Your task to perform on an android device: choose inbox layout in the gmail app Image 0: 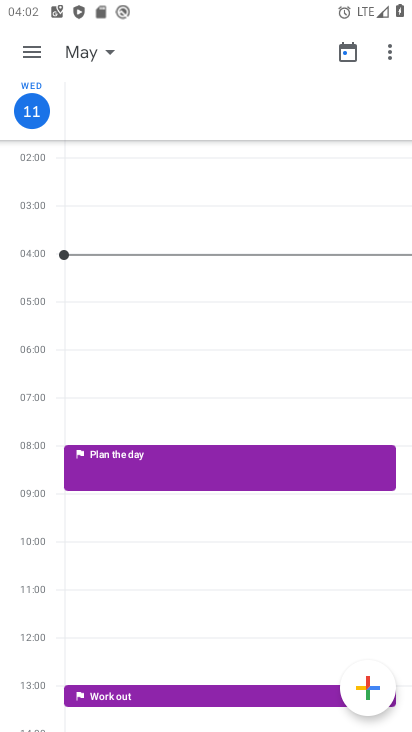
Step 0: press home button
Your task to perform on an android device: choose inbox layout in the gmail app Image 1: 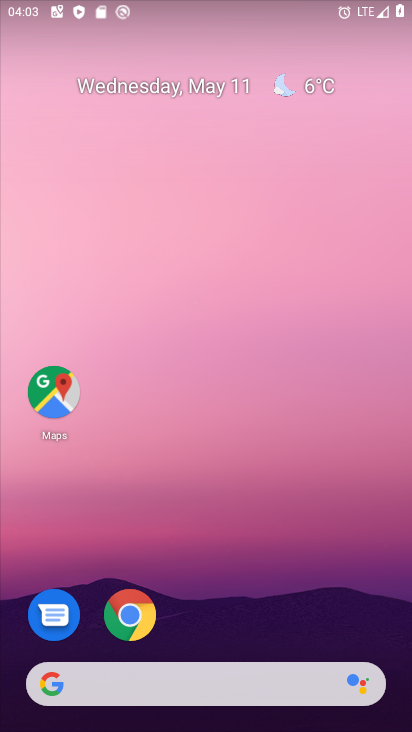
Step 1: drag from (266, 485) to (253, 130)
Your task to perform on an android device: choose inbox layout in the gmail app Image 2: 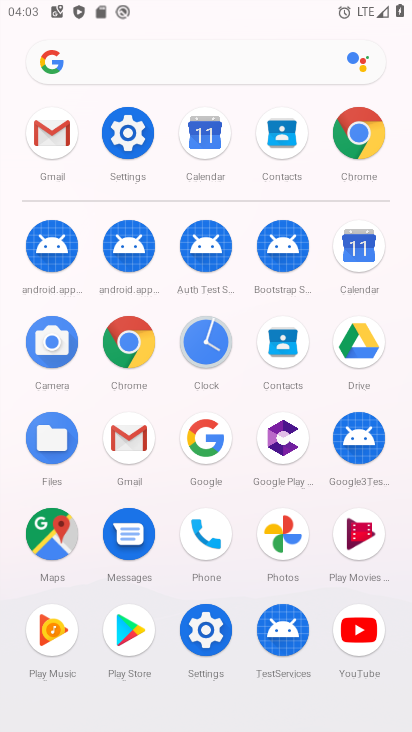
Step 2: click (52, 140)
Your task to perform on an android device: choose inbox layout in the gmail app Image 3: 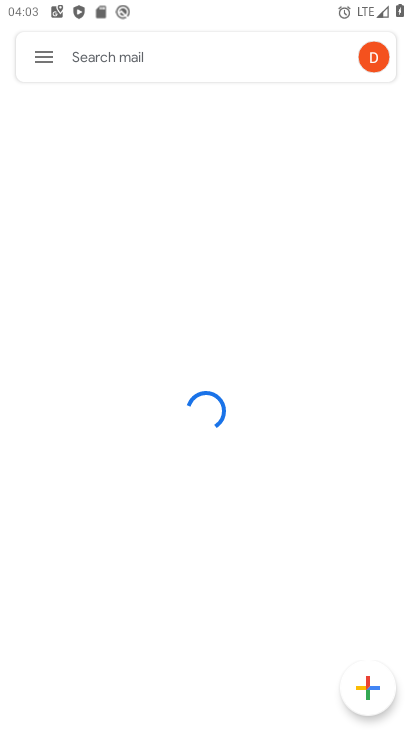
Step 3: click (40, 48)
Your task to perform on an android device: choose inbox layout in the gmail app Image 4: 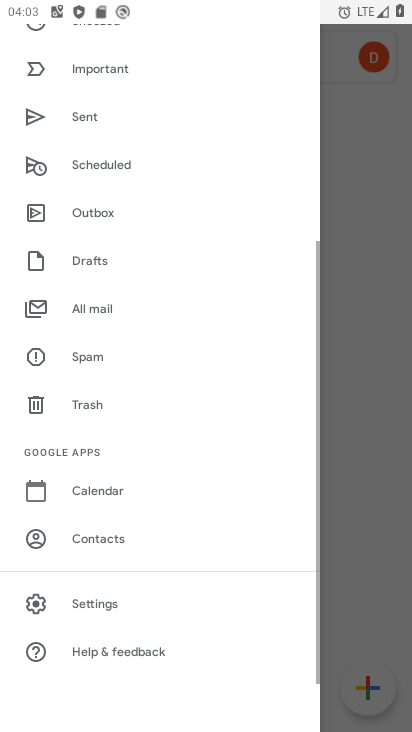
Step 4: drag from (198, 574) to (176, 154)
Your task to perform on an android device: choose inbox layout in the gmail app Image 5: 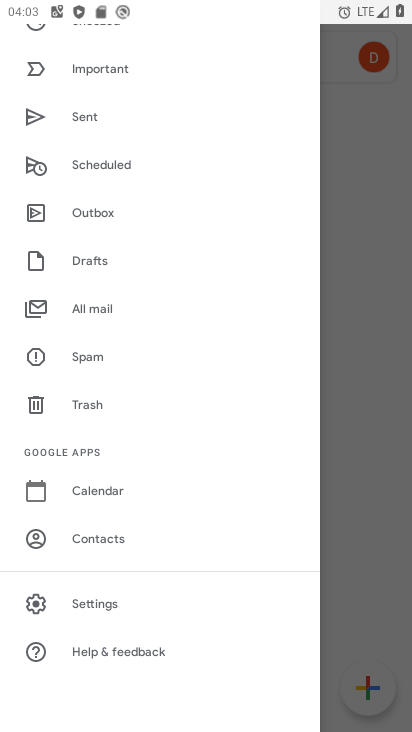
Step 5: click (104, 601)
Your task to perform on an android device: choose inbox layout in the gmail app Image 6: 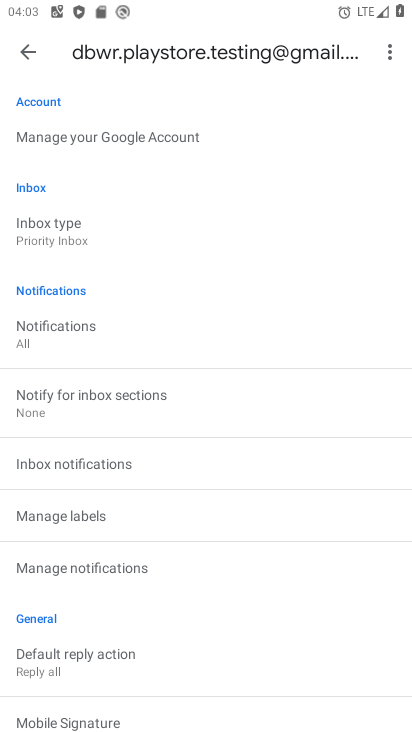
Step 6: click (64, 238)
Your task to perform on an android device: choose inbox layout in the gmail app Image 7: 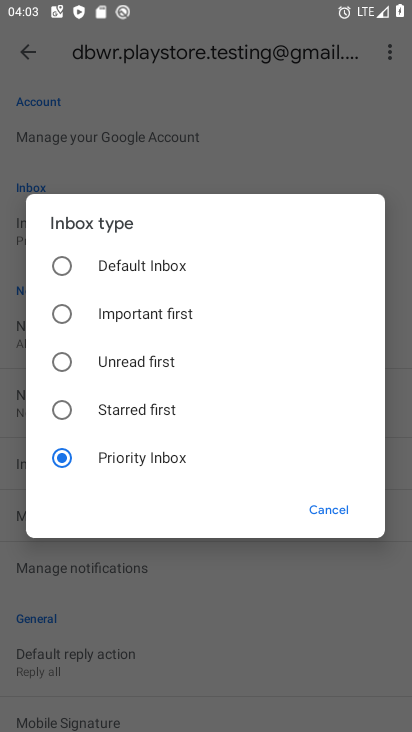
Step 7: task complete